Your task to perform on an android device: Add panasonic triple a to the cart on costco Image 0: 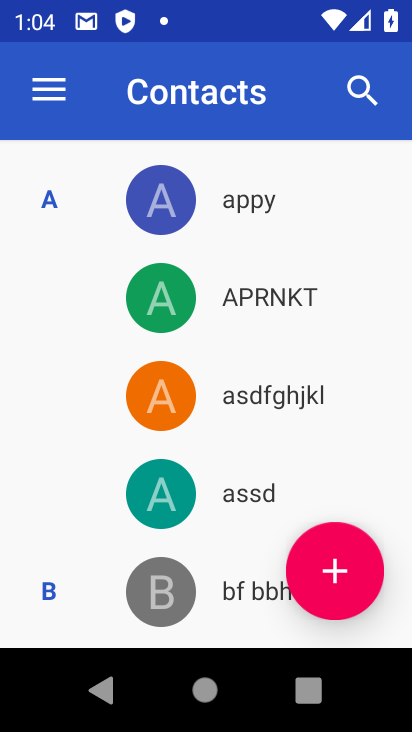
Step 0: press home button
Your task to perform on an android device: Add panasonic triple a to the cart on costco Image 1: 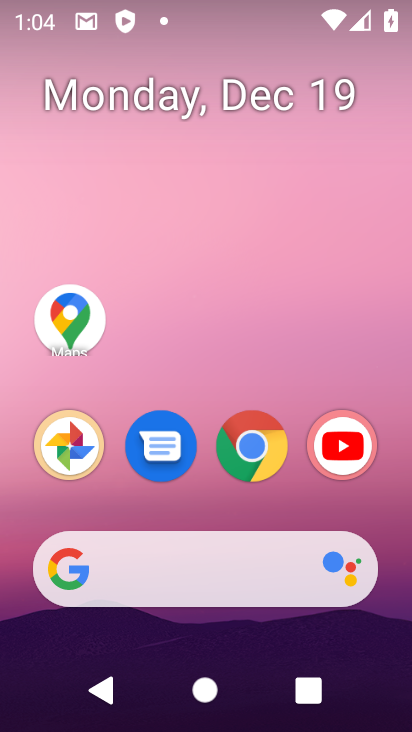
Step 1: click (269, 473)
Your task to perform on an android device: Add panasonic triple a to the cart on costco Image 2: 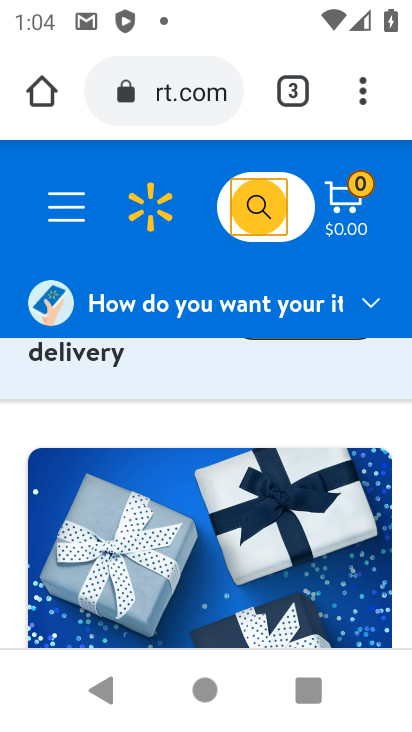
Step 2: click (161, 100)
Your task to perform on an android device: Add panasonic triple a to the cart on costco Image 3: 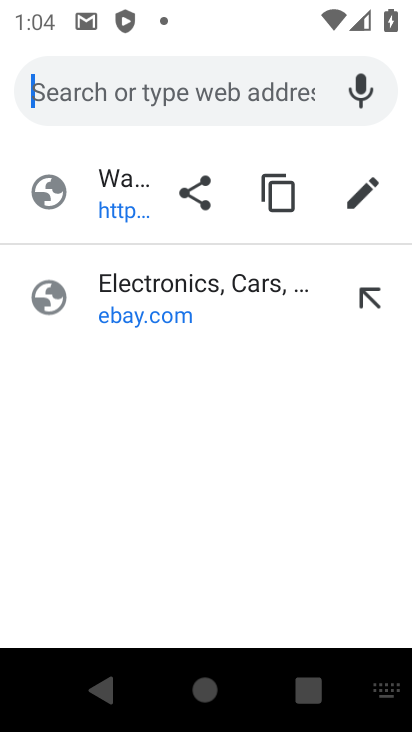
Step 3: type "costco"
Your task to perform on an android device: Add panasonic triple a to the cart on costco Image 4: 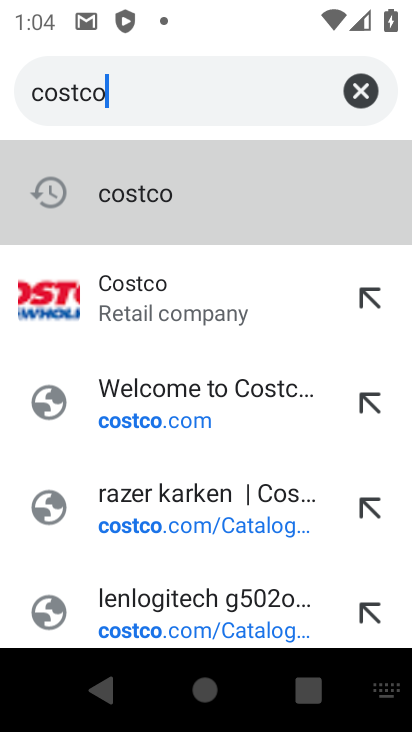
Step 4: click (179, 299)
Your task to perform on an android device: Add panasonic triple a to the cart on costco Image 5: 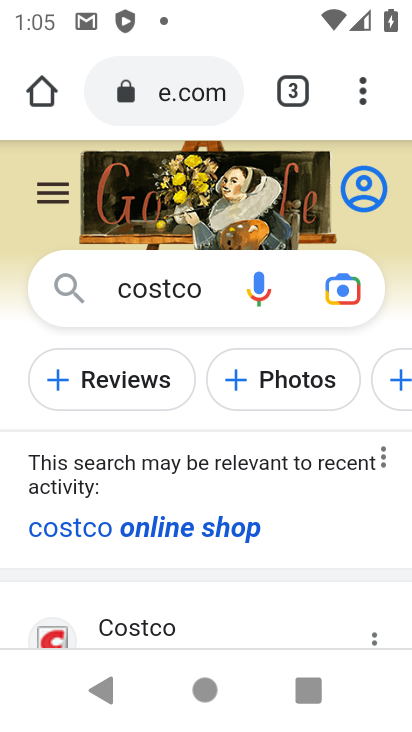
Step 5: click (199, 637)
Your task to perform on an android device: Add panasonic triple a to the cart on costco Image 6: 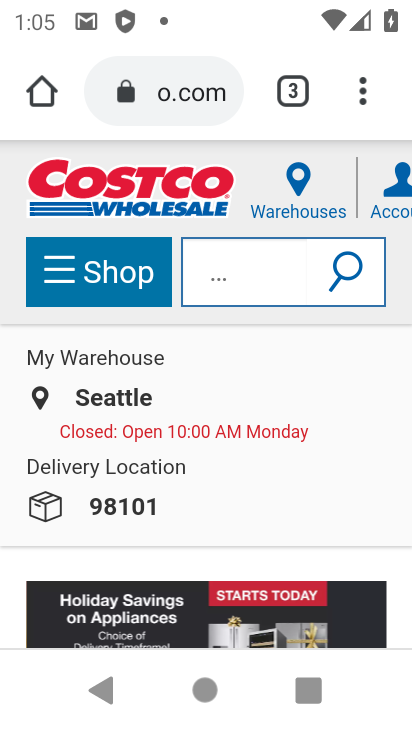
Step 6: task complete